Your task to perform on an android device: Go to internet settings Image 0: 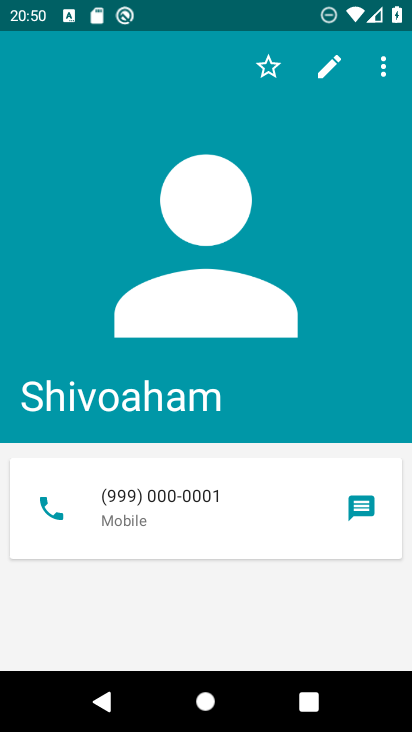
Step 0: press home button
Your task to perform on an android device: Go to internet settings Image 1: 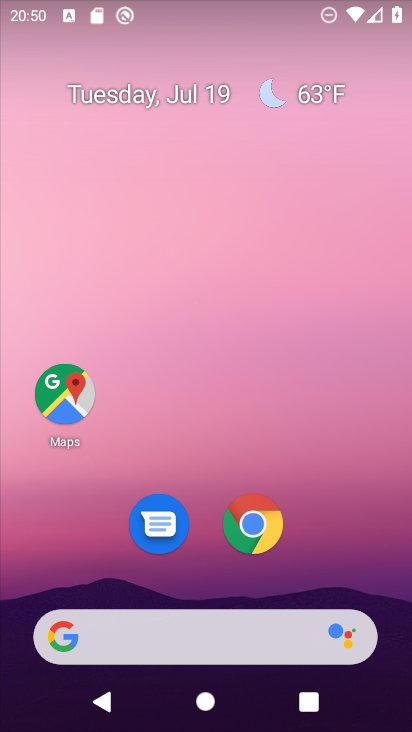
Step 1: drag from (334, 510) to (318, 37)
Your task to perform on an android device: Go to internet settings Image 2: 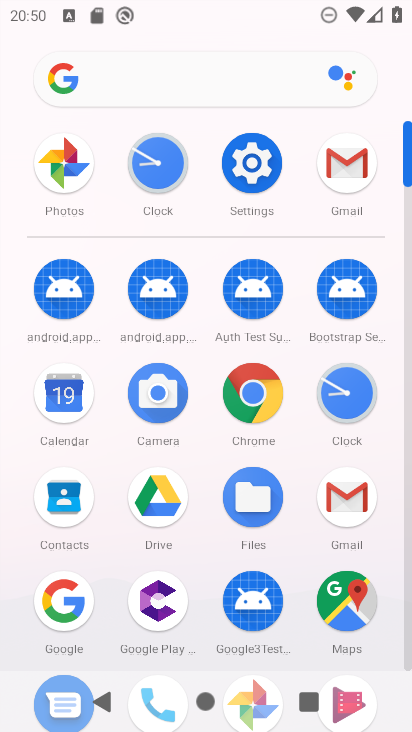
Step 2: click (265, 161)
Your task to perform on an android device: Go to internet settings Image 3: 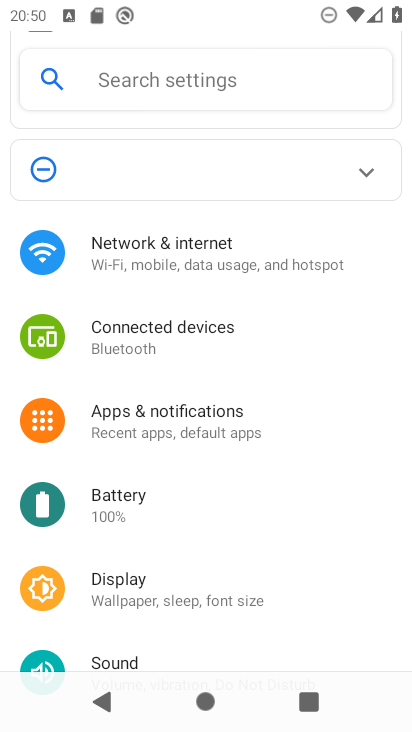
Step 3: click (250, 264)
Your task to perform on an android device: Go to internet settings Image 4: 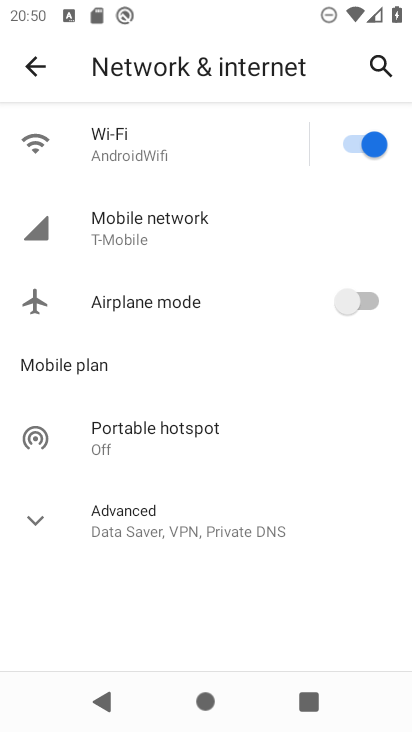
Step 4: task complete